Your task to perform on an android device: toggle notifications settings in the gmail app Image 0: 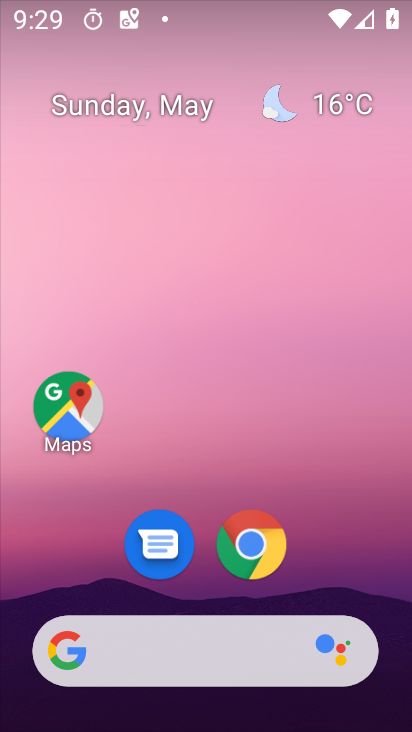
Step 0: drag from (320, 440) to (253, 98)
Your task to perform on an android device: toggle notifications settings in the gmail app Image 1: 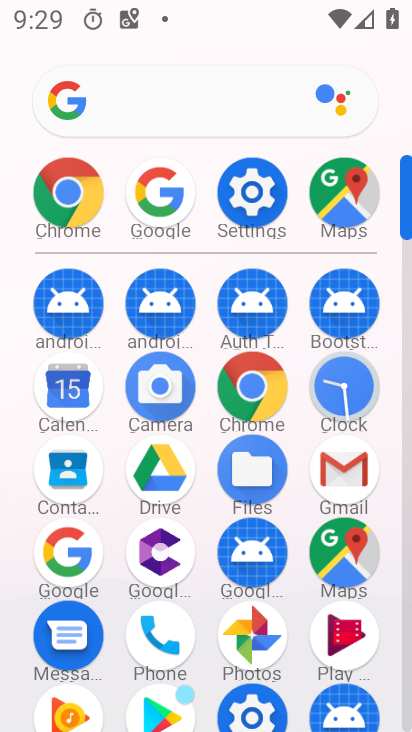
Step 1: click (356, 481)
Your task to perform on an android device: toggle notifications settings in the gmail app Image 2: 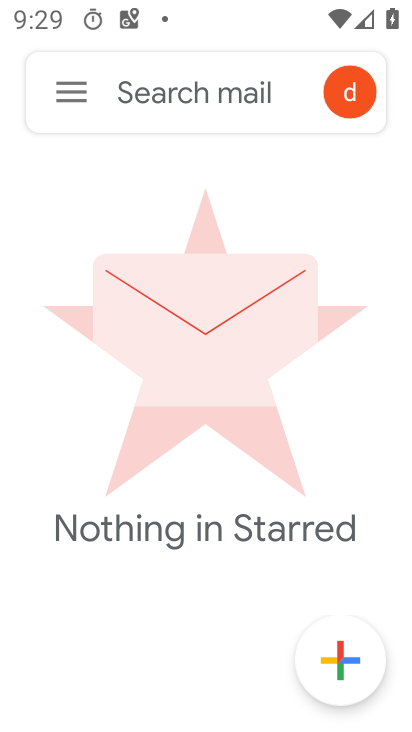
Step 2: click (58, 90)
Your task to perform on an android device: toggle notifications settings in the gmail app Image 3: 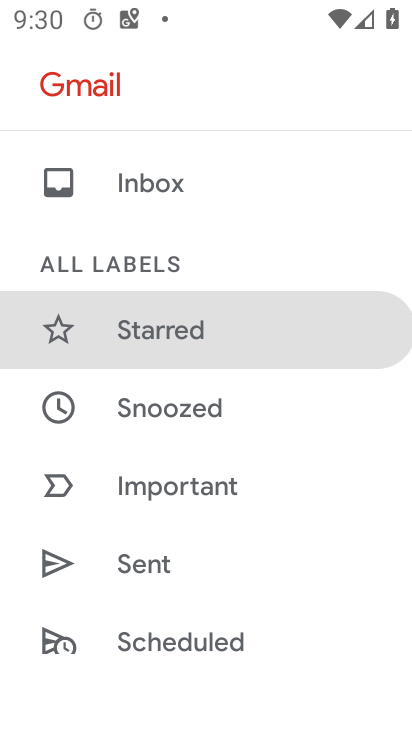
Step 3: drag from (171, 609) to (246, 162)
Your task to perform on an android device: toggle notifications settings in the gmail app Image 4: 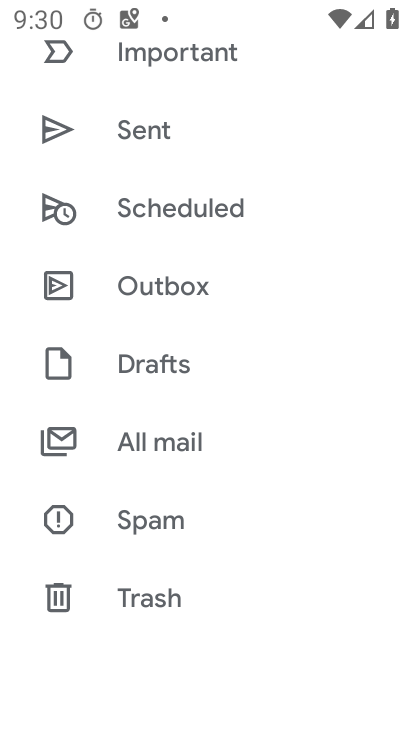
Step 4: drag from (210, 593) to (269, 91)
Your task to perform on an android device: toggle notifications settings in the gmail app Image 5: 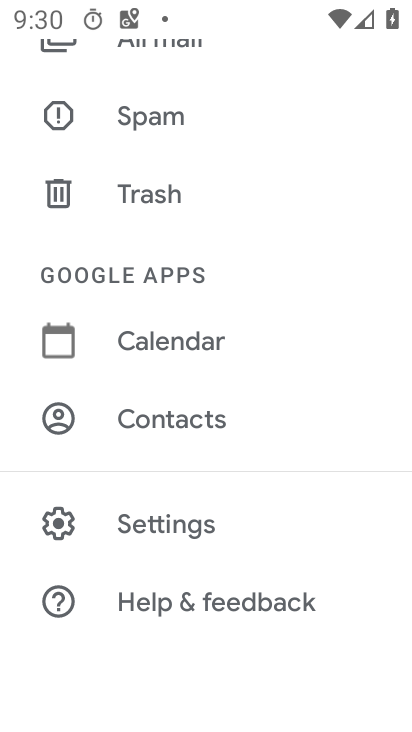
Step 5: click (158, 536)
Your task to perform on an android device: toggle notifications settings in the gmail app Image 6: 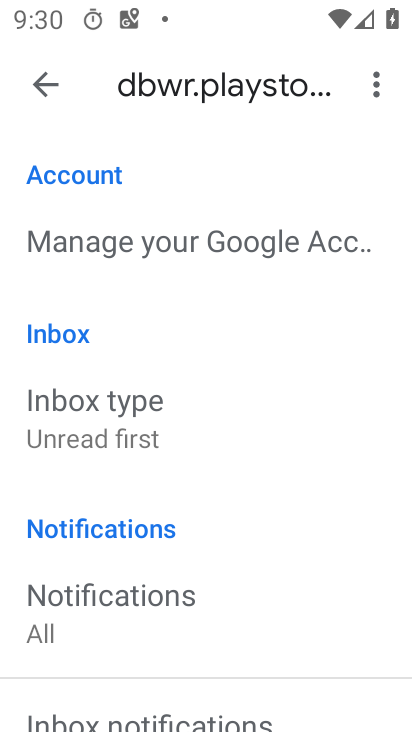
Step 6: click (104, 612)
Your task to perform on an android device: toggle notifications settings in the gmail app Image 7: 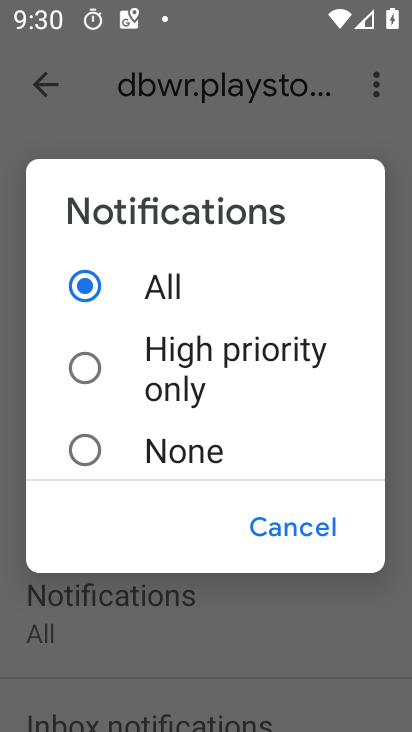
Step 7: click (88, 456)
Your task to perform on an android device: toggle notifications settings in the gmail app Image 8: 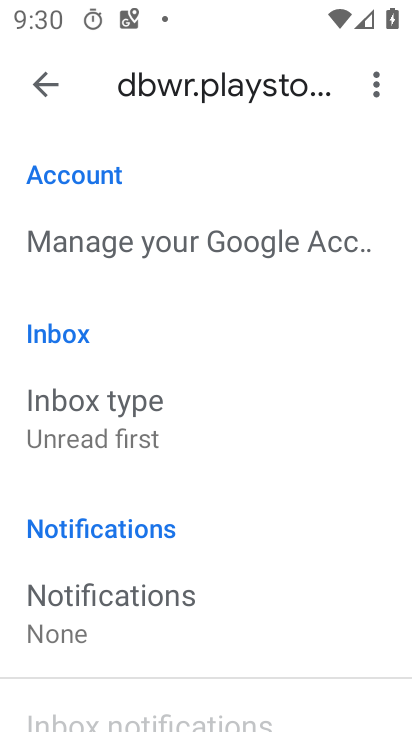
Step 8: task complete